Your task to perform on an android device: Open maps Image 0: 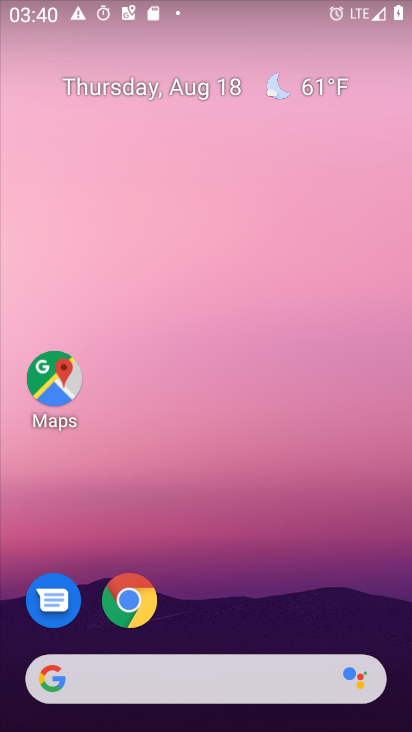
Step 0: click (51, 379)
Your task to perform on an android device: Open maps Image 1: 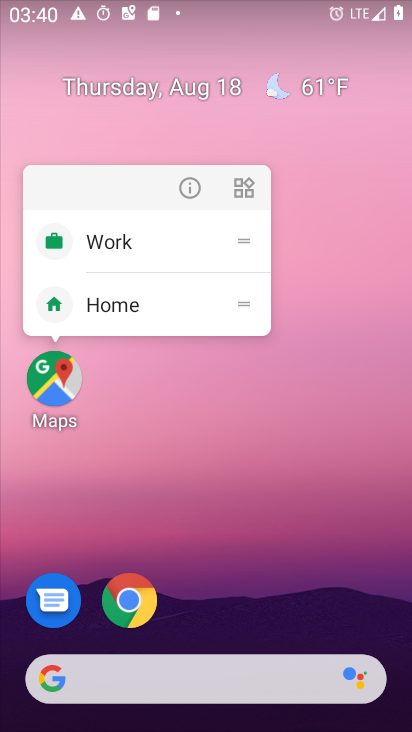
Step 1: click (51, 379)
Your task to perform on an android device: Open maps Image 2: 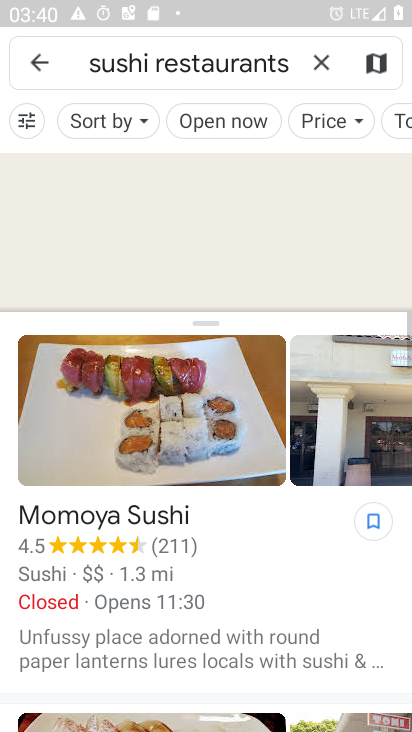
Step 2: task complete